Your task to perform on an android device: Open Google Image 0: 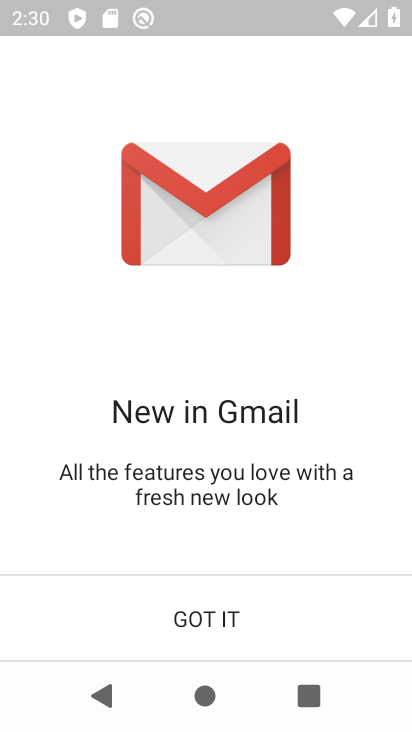
Step 0: press home button
Your task to perform on an android device: Open Google Image 1: 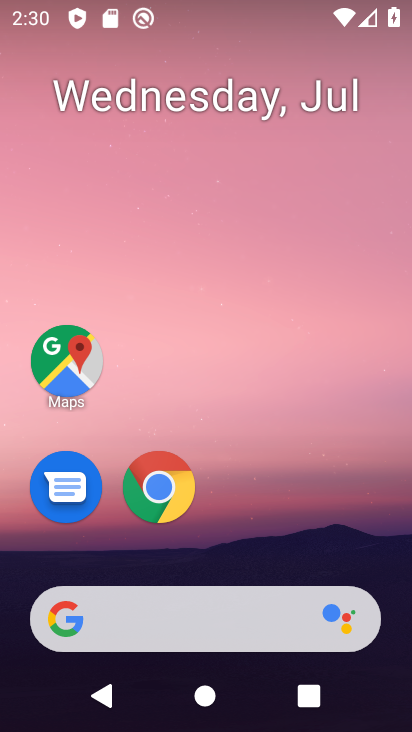
Step 1: drag from (293, 546) to (248, 129)
Your task to perform on an android device: Open Google Image 2: 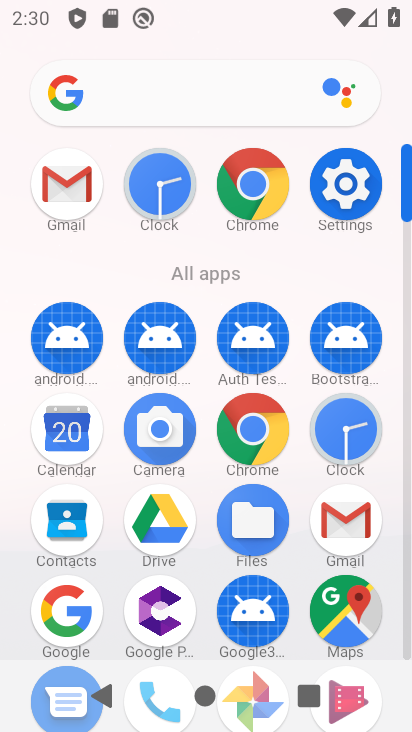
Step 2: click (75, 604)
Your task to perform on an android device: Open Google Image 3: 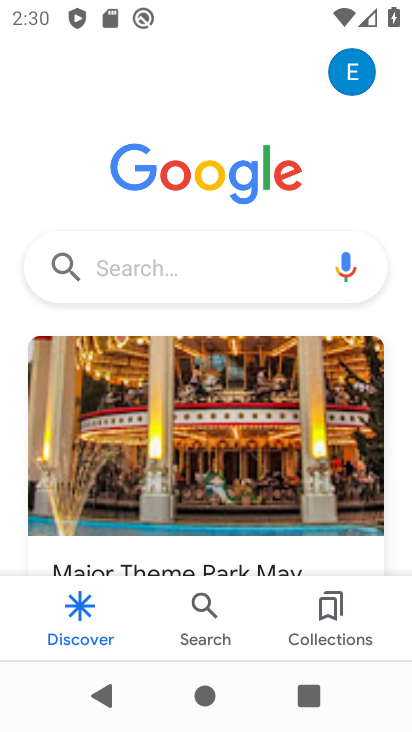
Step 3: task complete